Your task to perform on an android device: Open the phone app and click the voicemail tab. Image 0: 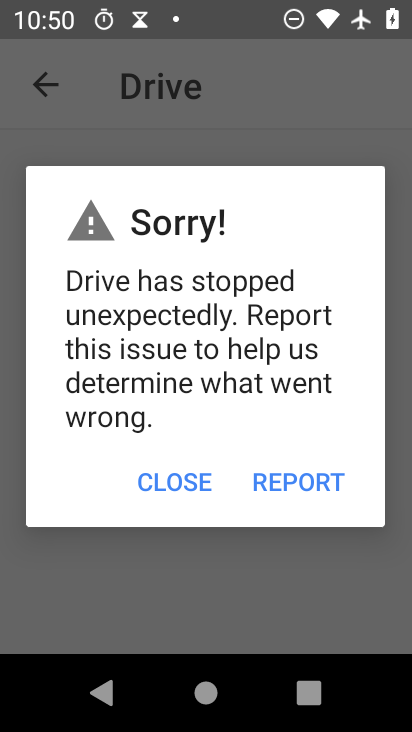
Step 0: press back button
Your task to perform on an android device: Open the phone app and click the voicemail tab. Image 1: 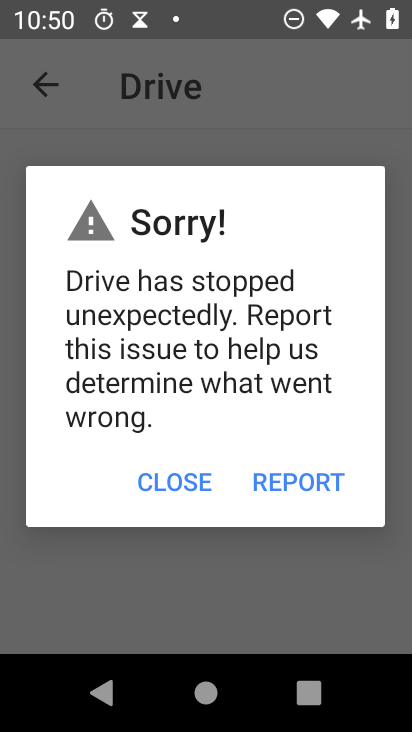
Step 1: press home button
Your task to perform on an android device: Open the phone app and click the voicemail tab. Image 2: 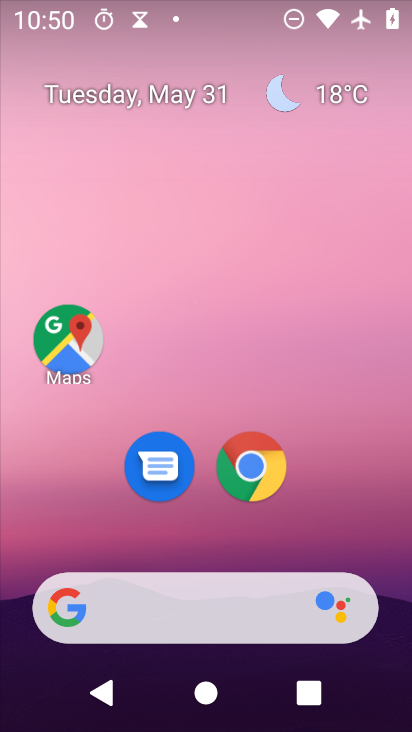
Step 2: drag from (357, 494) to (276, 22)
Your task to perform on an android device: Open the phone app and click the voicemail tab. Image 3: 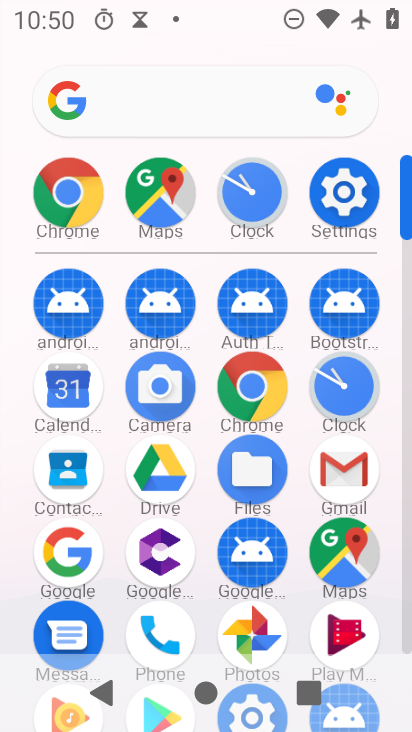
Step 3: drag from (7, 563) to (17, 288)
Your task to perform on an android device: Open the phone app and click the voicemail tab. Image 4: 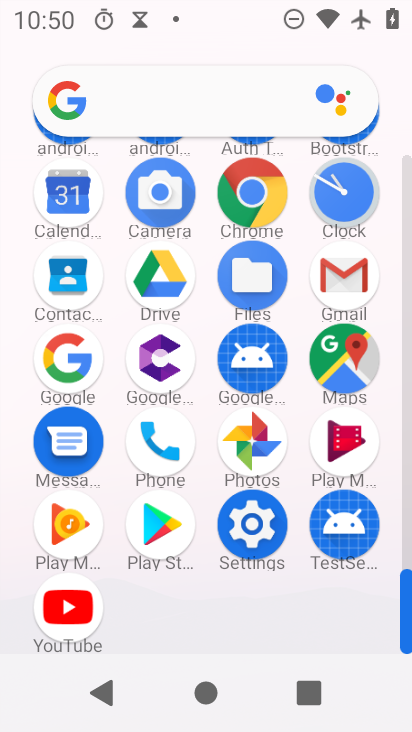
Step 4: click (154, 435)
Your task to perform on an android device: Open the phone app and click the voicemail tab. Image 5: 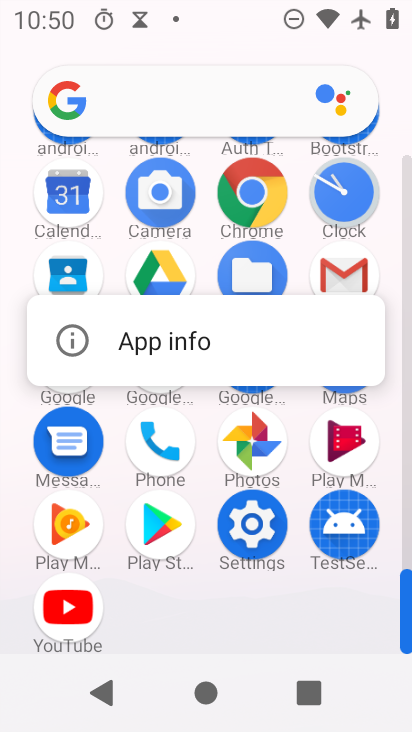
Step 5: click (155, 435)
Your task to perform on an android device: Open the phone app and click the voicemail tab. Image 6: 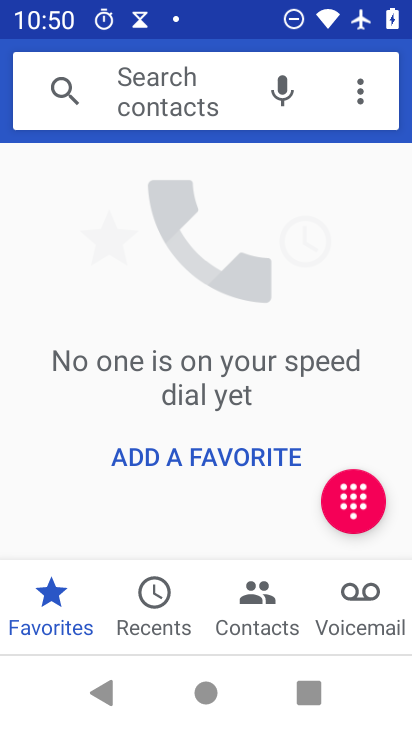
Step 6: click (349, 607)
Your task to perform on an android device: Open the phone app and click the voicemail tab. Image 7: 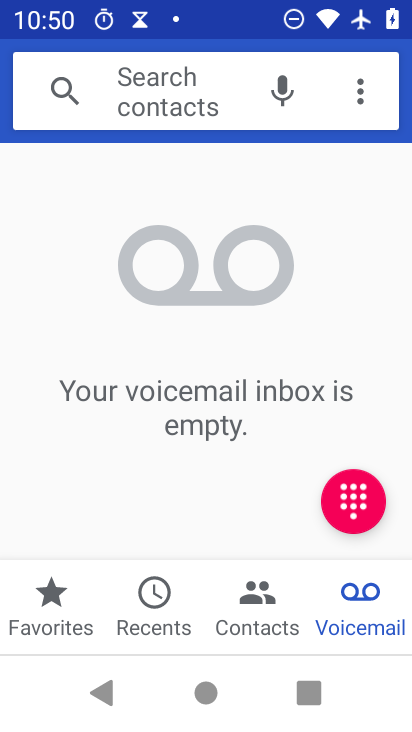
Step 7: task complete